Your task to perform on an android device: Open network settings Image 0: 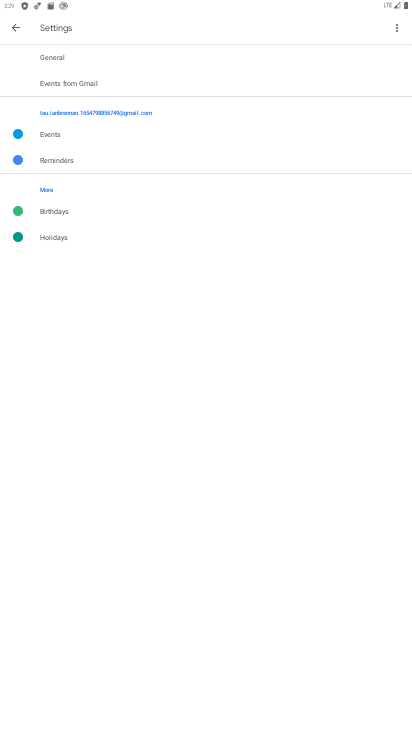
Step 0: click (16, 23)
Your task to perform on an android device: Open network settings Image 1: 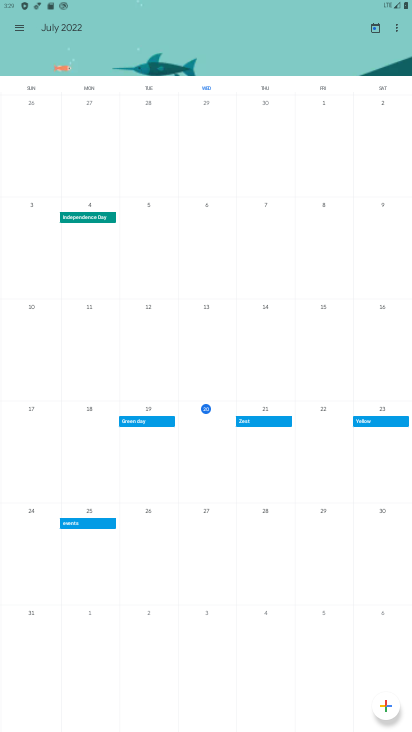
Step 1: press home button
Your task to perform on an android device: Open network settings Image 2: 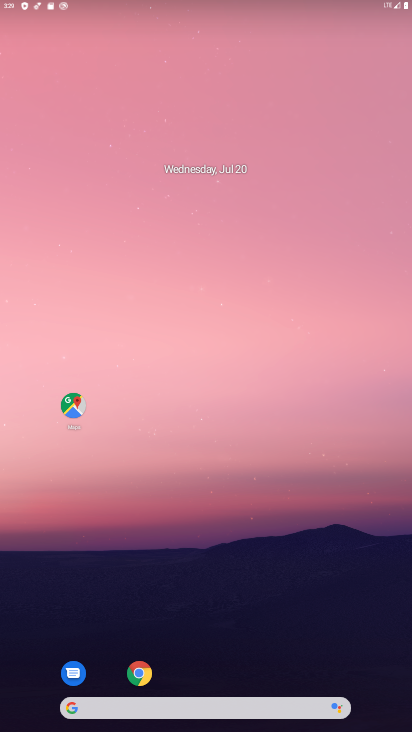
Step 2: drag from (203, 563) to (268, 226)
Your task to perform on an android device: Open network settings Image 3: 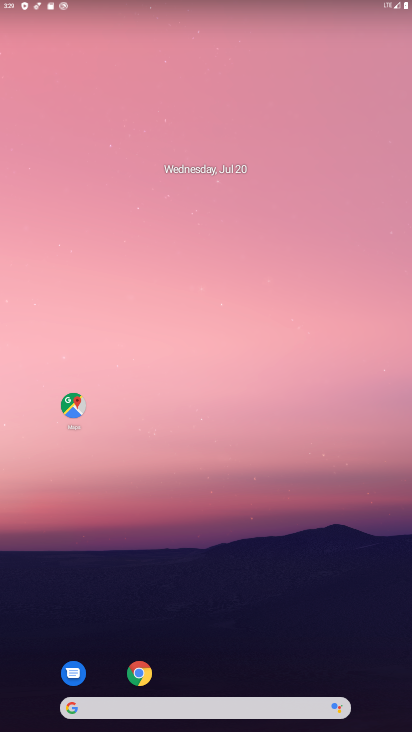
Step 3: drag from (279, 559) to (323, 141)
Your task to perform on an android device: Open network settings Image 4: 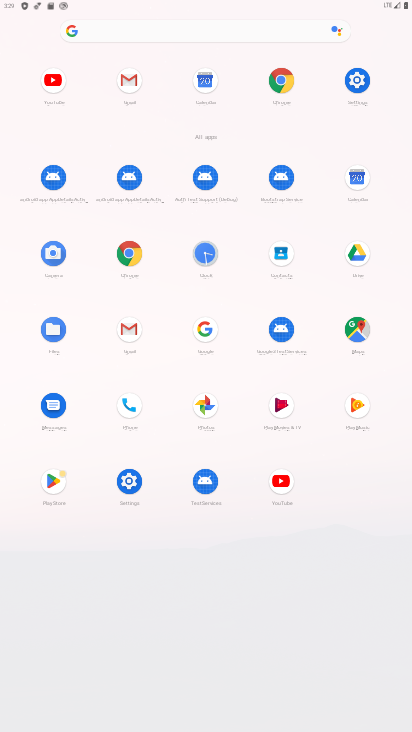
Step 4: click (357, 84)
Your task to perform on an android device: Open network settings Image 5: 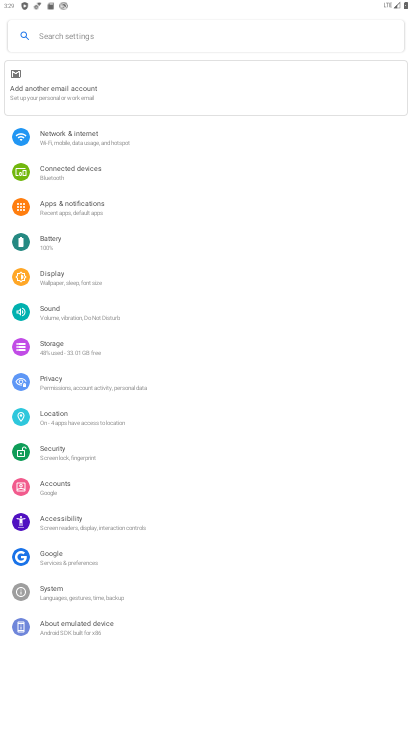
Step 5: task complete